Your task to perform on an android device: Open wifi settings Image 0: 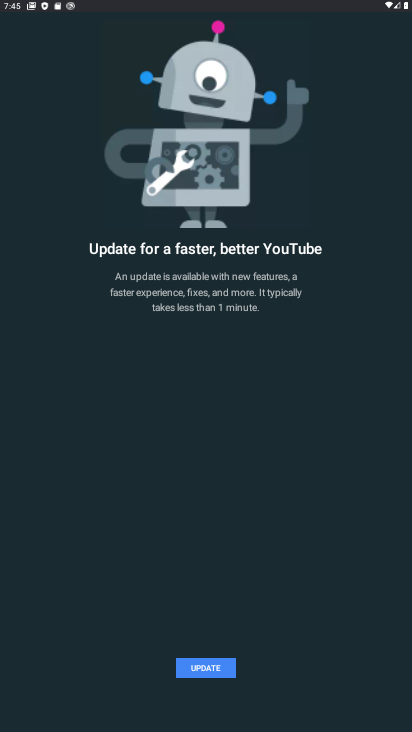
Step 0: press back button
Your task to perform on an android device: Open wifi settings Image 1: 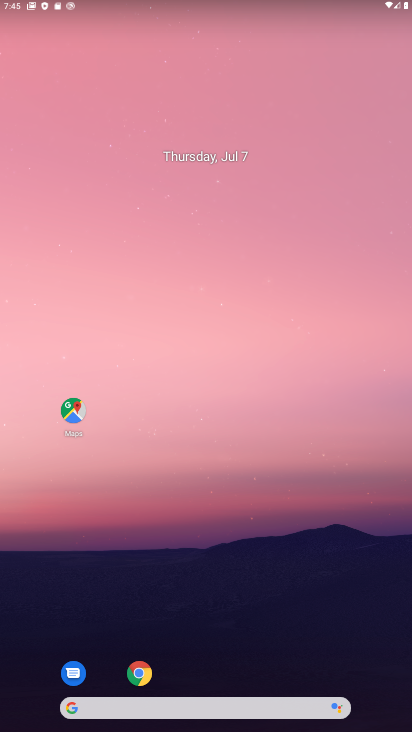
Step 1: drag from (200, 699) to (168, 27)
Your task to perform on an android device: Open wifi settings Image 2: 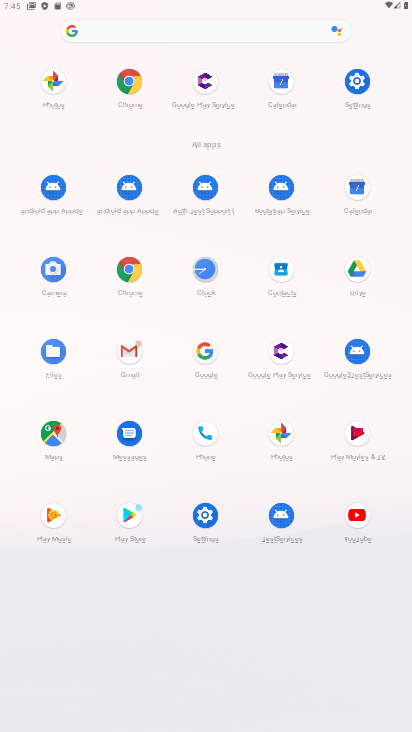
Step 2: click (350, 74)
Your task to perform on an android device: Open wifi settings Image 3: 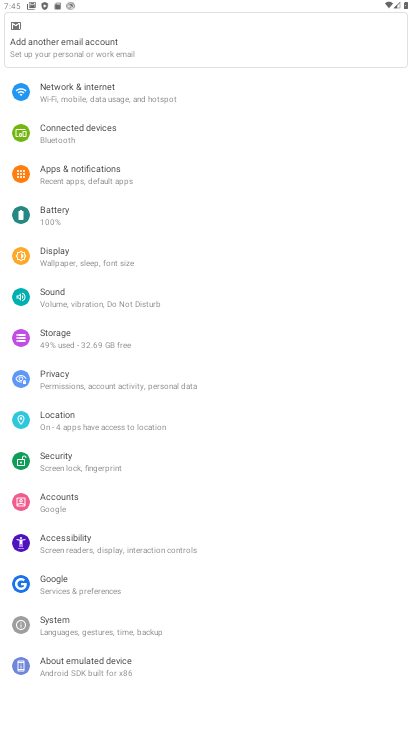
Step 3: click (61, 111)
Your task to perform on an android device: Open wifi settings Image 4: 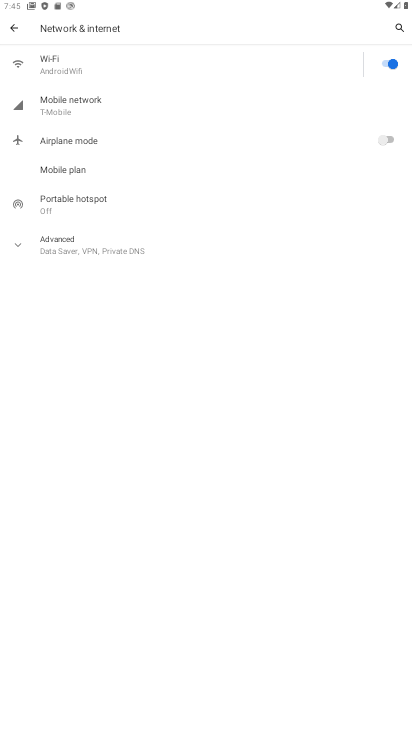
Step 4: click (36, 46)
Your task to perform on an android device: Open wifi settings Image 5: 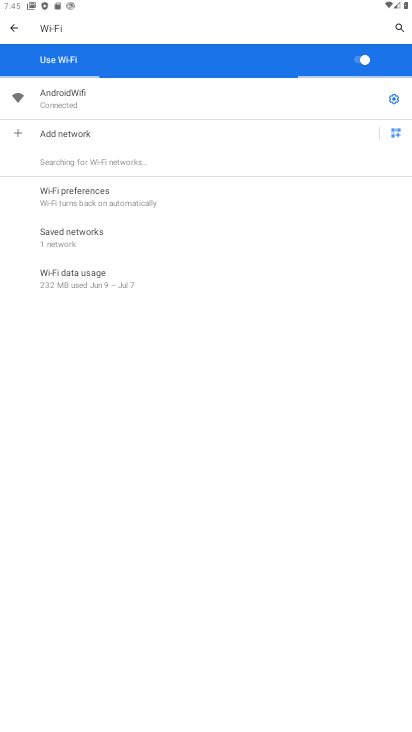
Step 5: task complete